Your task to perform on an android device: open sync settings in chrome Image 0: 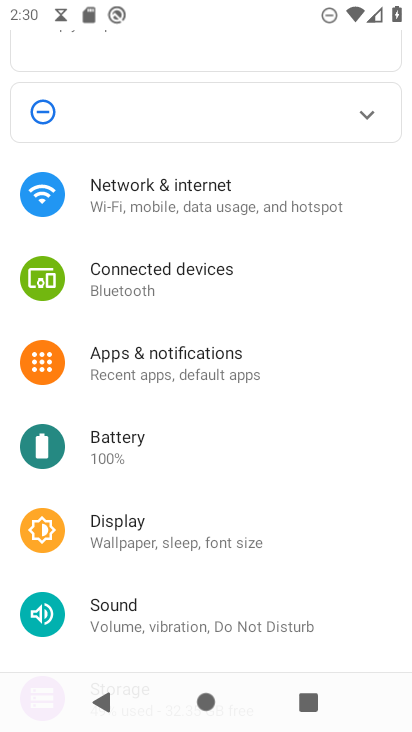
Step 0: press home button
Your task to perform on an android device: open sync settings in chrome Image 1: 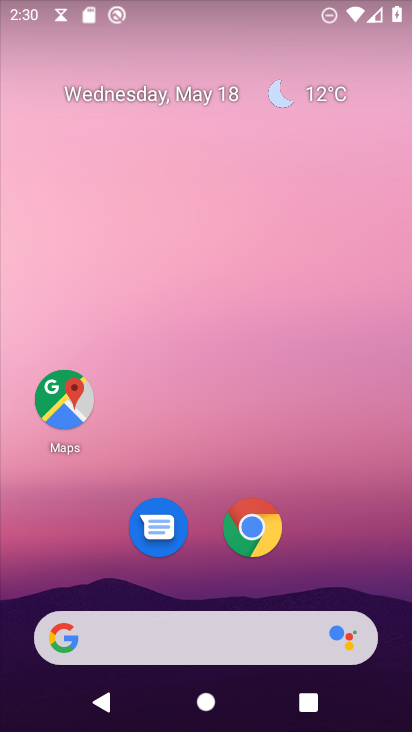
Step 1: click (259, 539)
Your task to perform on an android device: open sync settings in chrome Image 2: 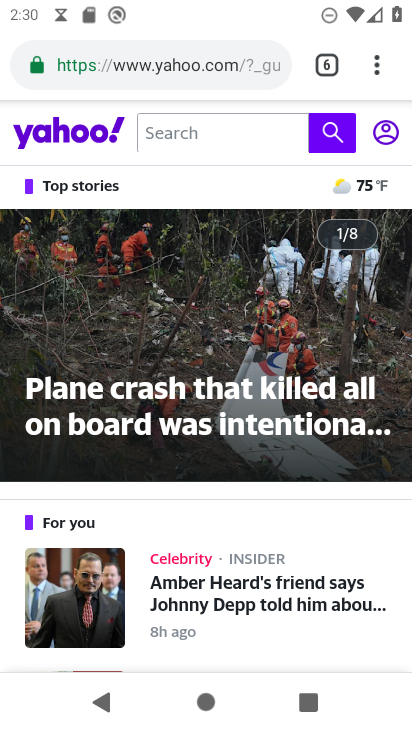
Step 2: click (378, 61)
Your task to perform on an android device: open sync settings in chrome Image 3: 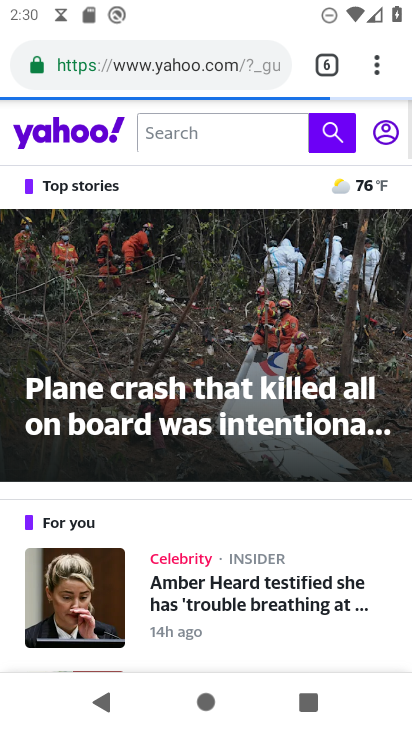
Step 3: click (382, 59)
Your task to perform on an android device: open sync settings in chrome Image 4: 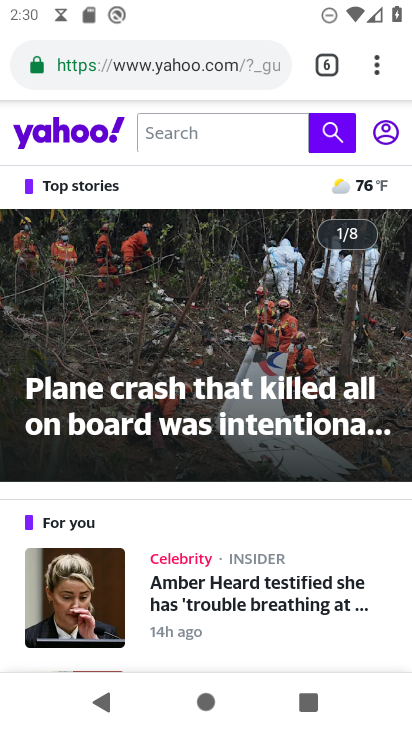
Step 4: click (375, 57)
Your task to perform on an android device: open sync settings in chrome Image 5: 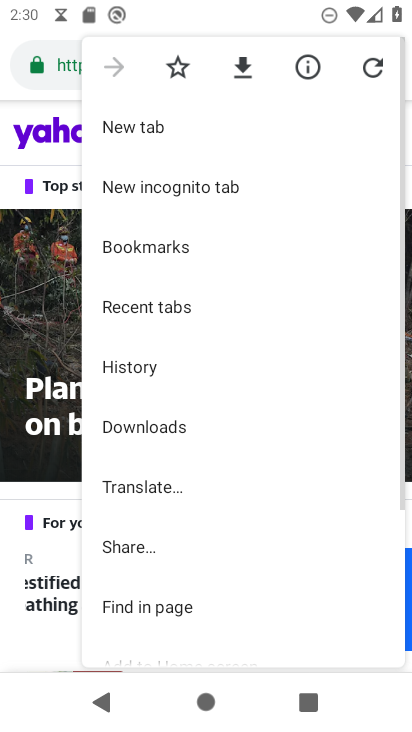
Step 5: drag from (249, 546) to (228, 165)
Your task to perform on an android device: open sync settings in chrome Image 6: 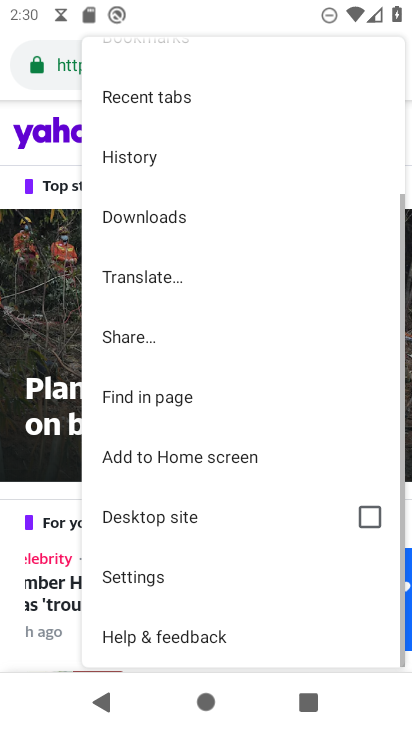
Step 6: click (197, 576)
Your task to perform on an android device: open sync settings in chrome Image 7: 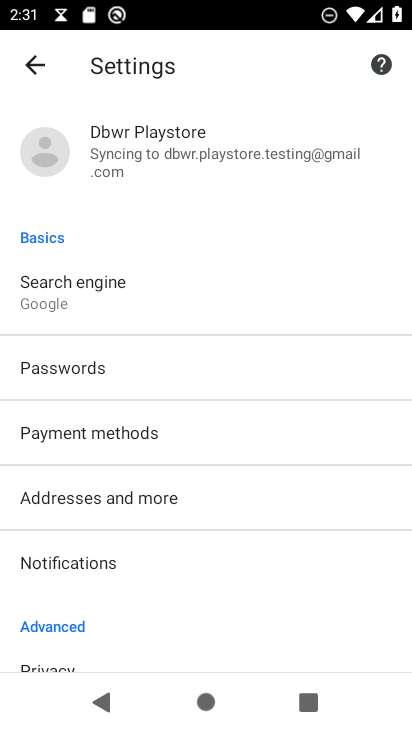
Step 7: drag from (255, 554) to (244, 164)
Your task to perform on an android device: open sync settings in chrome Image 8: 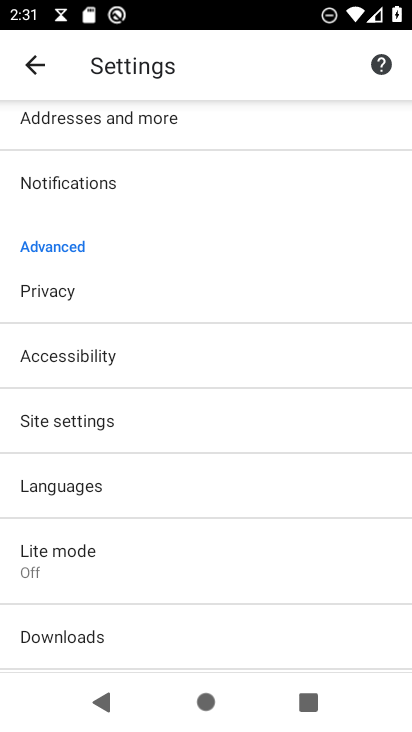
Step 8: click (142, 415)
Your task to perform on an android device: open sync settings in chrome Image 9: 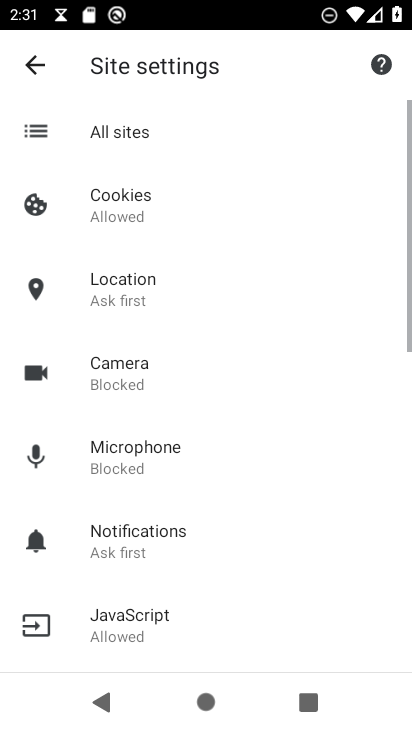
Step 9: drag from (227, 585) to (223, 159)
Your task to perform on an android device: open sync settings in chrome Image 10: 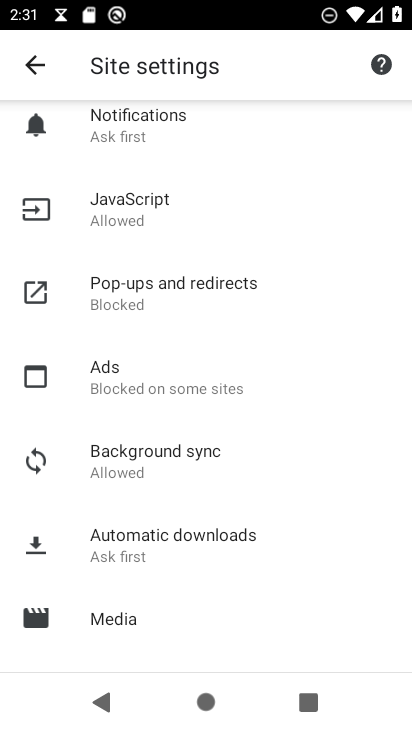
Step 10: click (220, 469)
Your task to perform on an android device: open sync settings in chrome Image 11: 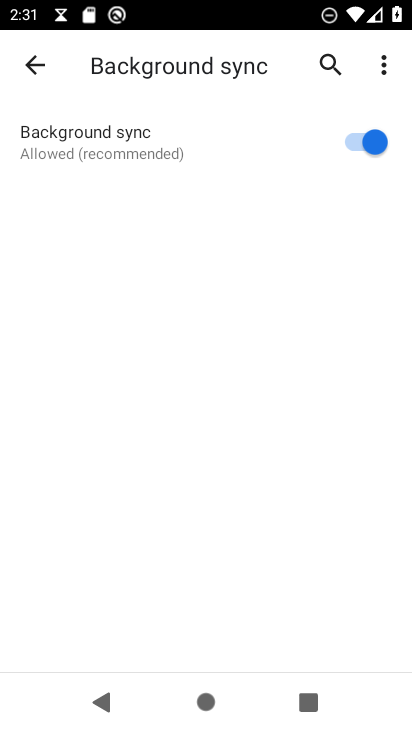
Step 11: task complete